Your task to perform on an android device: open a new tab in the chrome app Image 0: 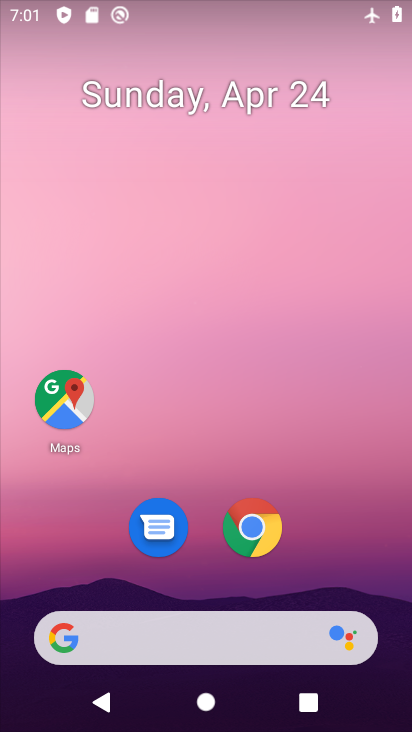
Step 0: drag from (340, 569) to (274, 39)
Your task to perform on an android device: open a new tab in the chrome app Image 1: 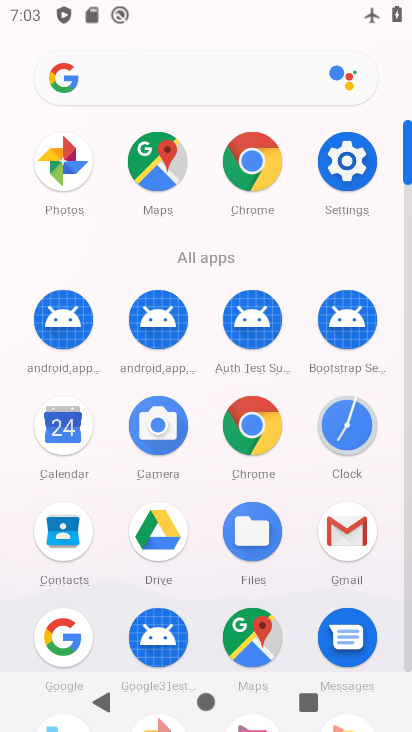
Step 1: click (269, 160)
Your task to perform on an android device: open a new tab in the chrome app Image 2: 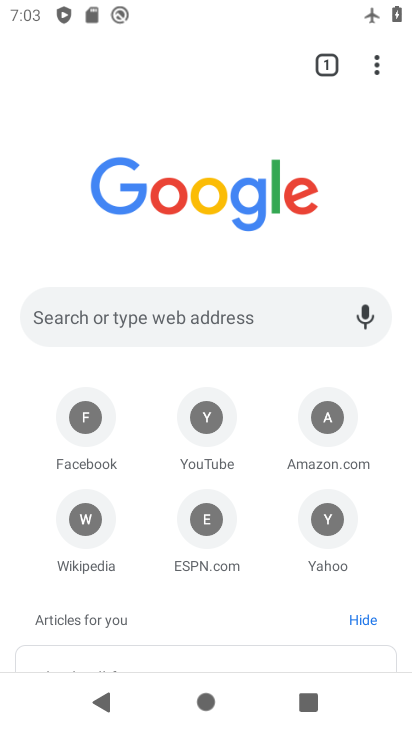
Step 2: click (327, 61)
Your task to perform on an android device: open a new tab in the chrome app Image 3: 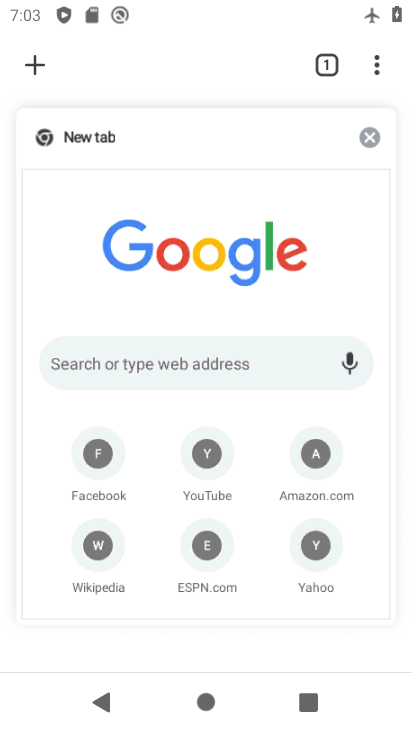
Step 3: click (40, 76)
Your task to perform on an android device: open a new tab in the chrome app Image 4: 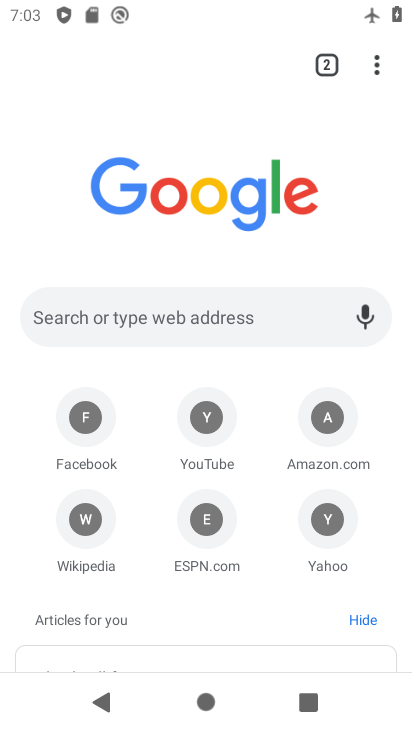
Step 4: task complete